Your task to perform on an android device: turn off data saver in the chrome app Image 0: 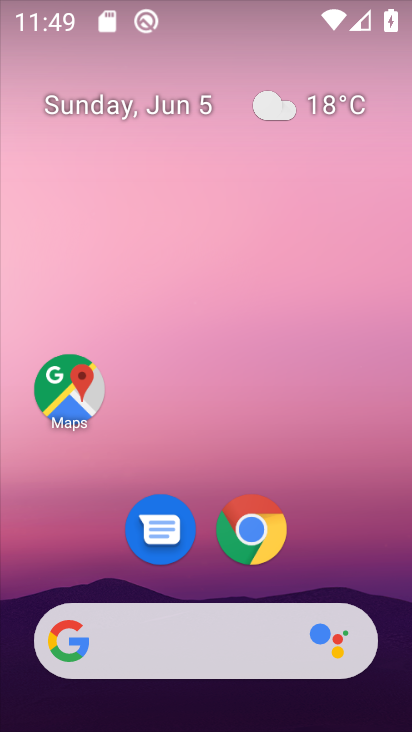
Step 0: click (250, 526)
Your task to perform on an android device: turn off data saver in the chrome app Image 1: 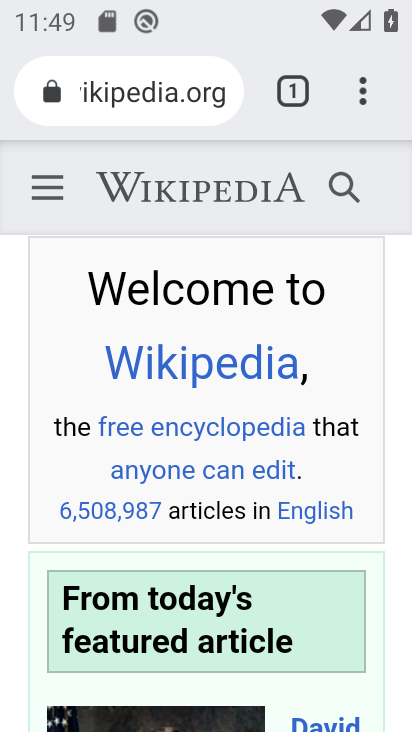
Step 1: click (359, 99)
Your task to perform on an android device: turn off data saver in the chrome app Image 2: 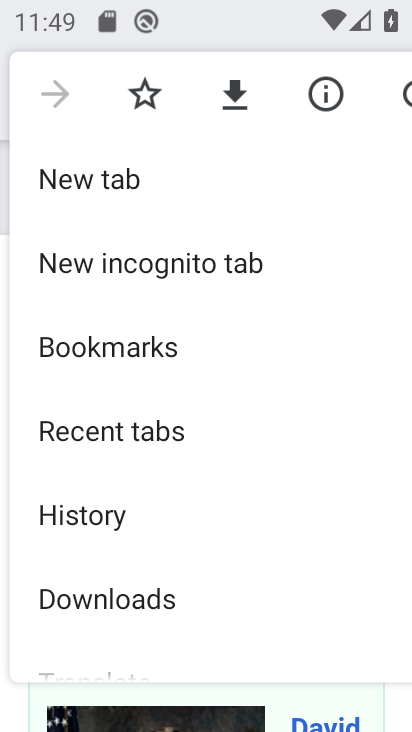
Step 2: drag from (222, 617) to (168, 218)
Your task to perform on an android device: turn off data saver in the chrome app Image 3: 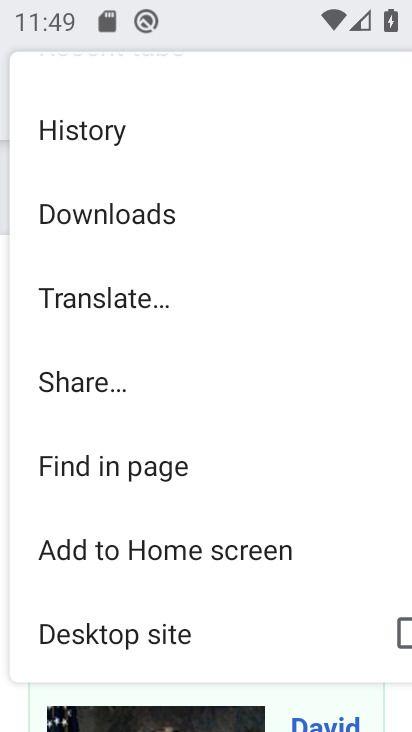
Step 3: drag from (129, 466) to (121, 264)
Your task to perform on an android device: turn off data saver in the chrome app Image 4: 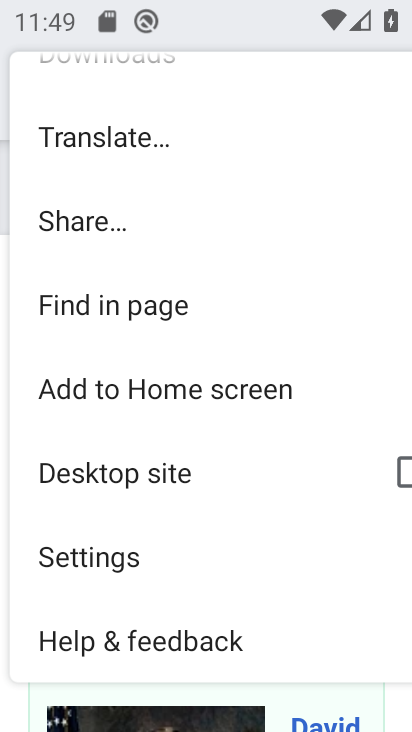
Step 4: click (143, 562)
Your task to perform on an android device: turn off data saver in the chrome app Image 5: 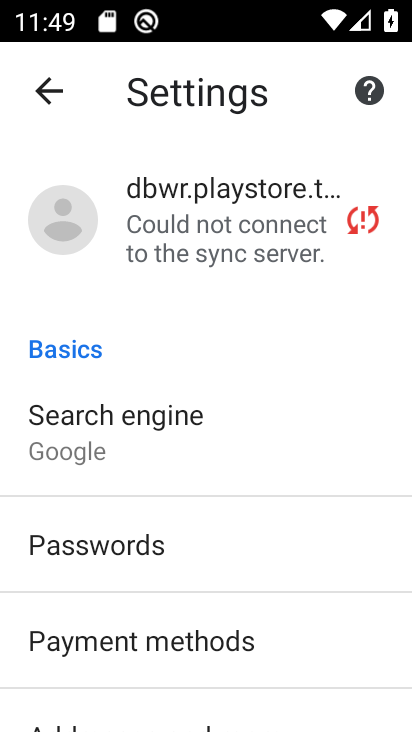
Step 5: drag from (209, 662) to (150, 91)
Your task to perform on an android device: turn off data saver in the chrome app Image 6: 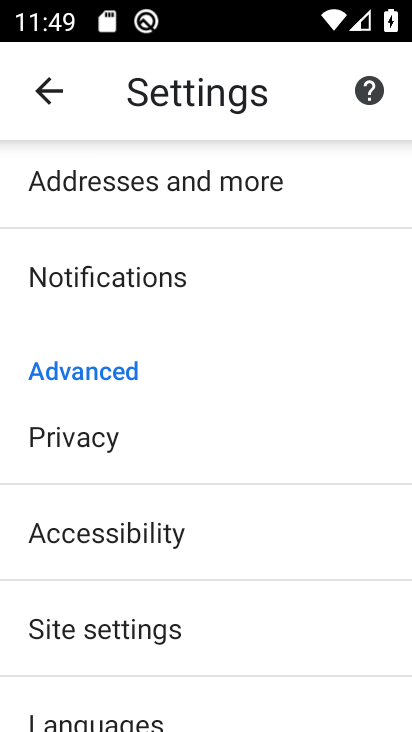
Step 6: drag from (97, 703) to (74, 370)
Your task to perform on an android device: turn off data saver in the chrome app Image 7: 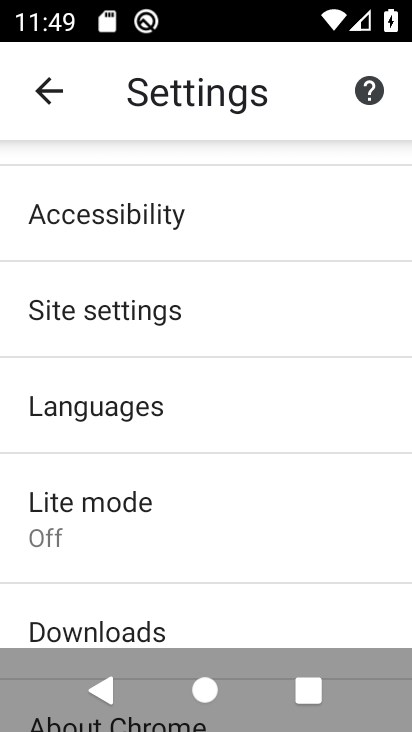
Step 7: click (86, 511)
Your task to perform on an android device: turn off data saver in the chrome app Image 8: 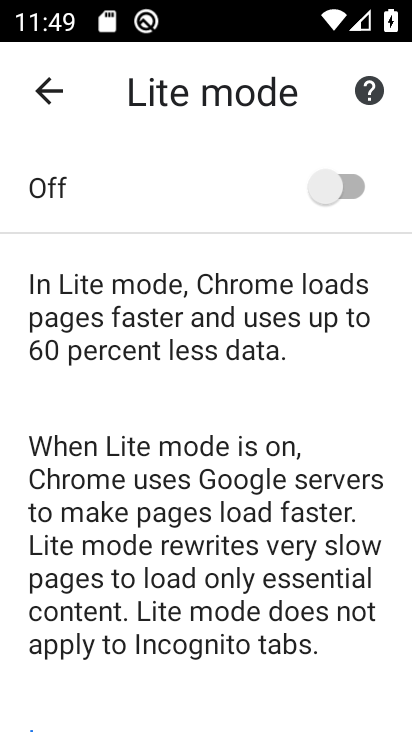
Step 8: task complete